Your task to perform on an android device: Find coffee shops on Maps Image 0: 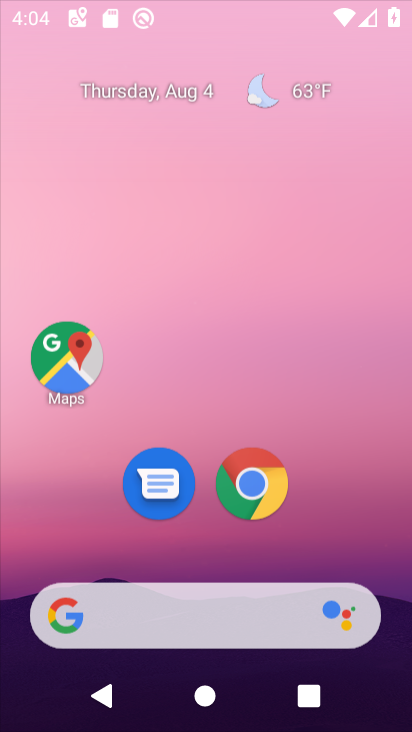
Step 0: click (252, 477)
Your task to perform on an android device: Find coffee shops on Maps Image 1: 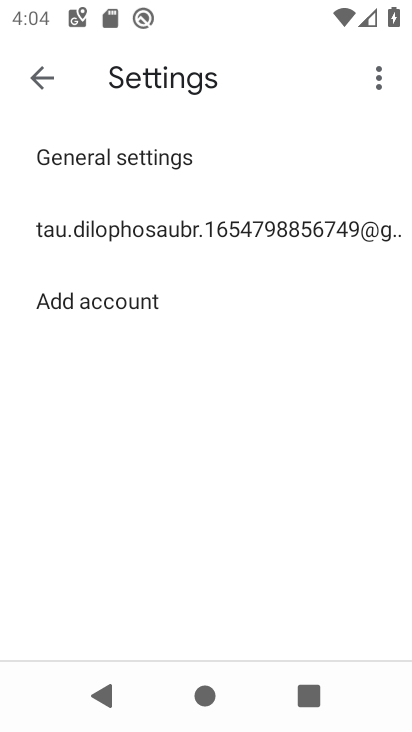
Step 1: press back button
Your task to perform on an android device: Find coffee shops on Maps Image 2: 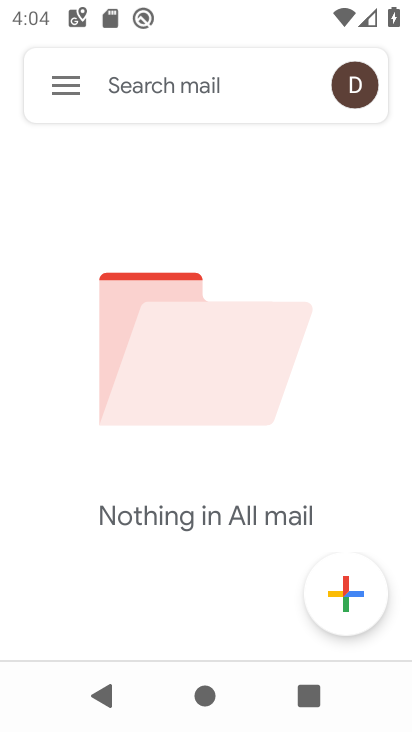
Step 2: press back button
Your task to perform on an android device: Find coffee shops on Maps Image 3: 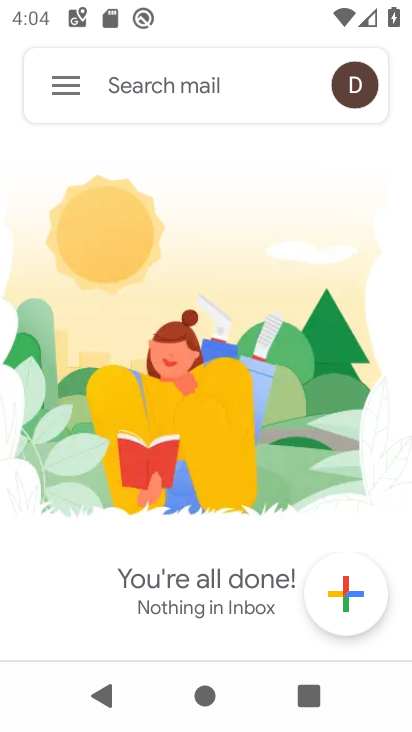
Step 3: press back button
Your task to perform on an android device: Find coffee shops on Maps Image 4: 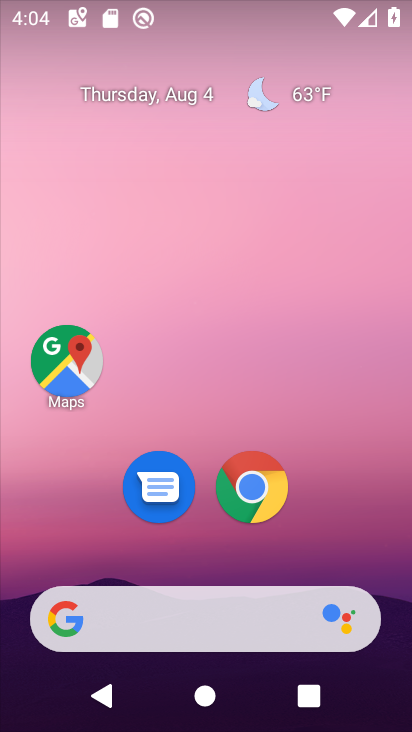
Step 4: click (62, 357)
Your task to perform on an android device: Find coffee shops on Maps Image 5: 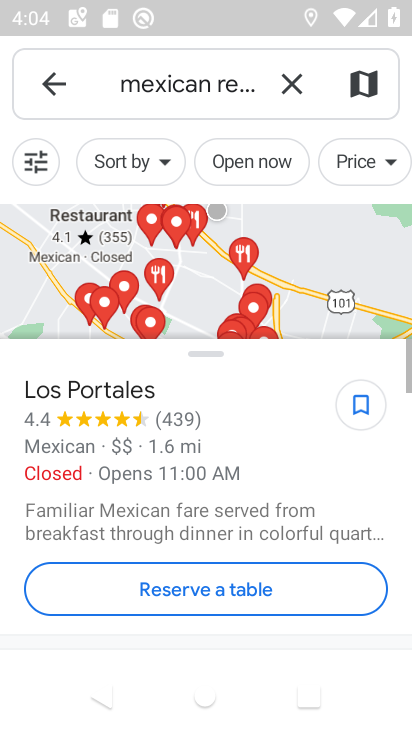
Step 5: click (289, 77)
Your task to perform on an android device: Find coffee shops on Maps Image 6: 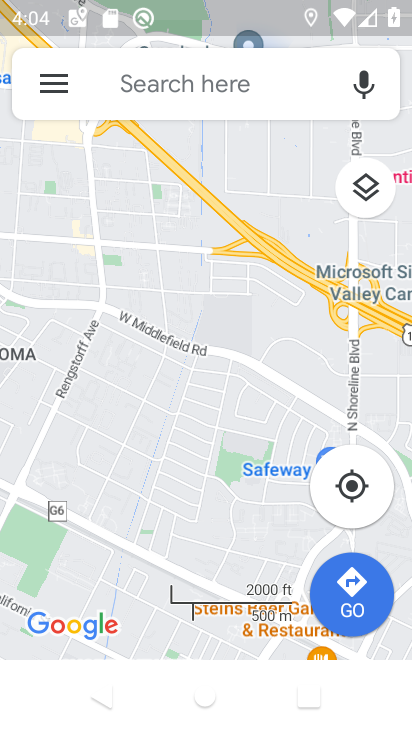
Step 6: click (162, 65)
Your task to perform on an android device: Find coffee shops on Maps Image 7: 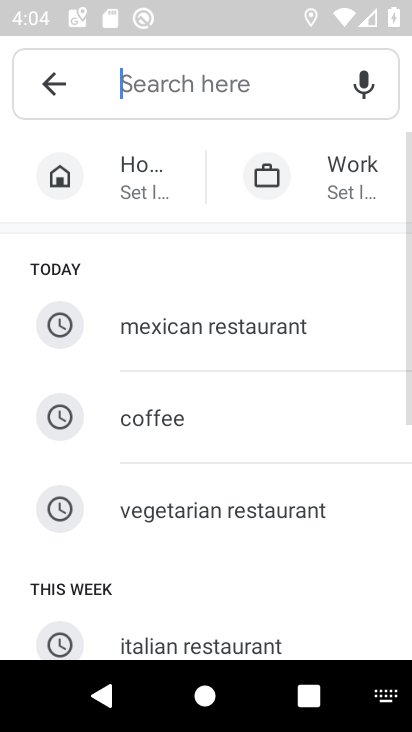
Step 7: click (149, 419)
Your task to perform on an android device: Find coffee shops on Maps Image 8: 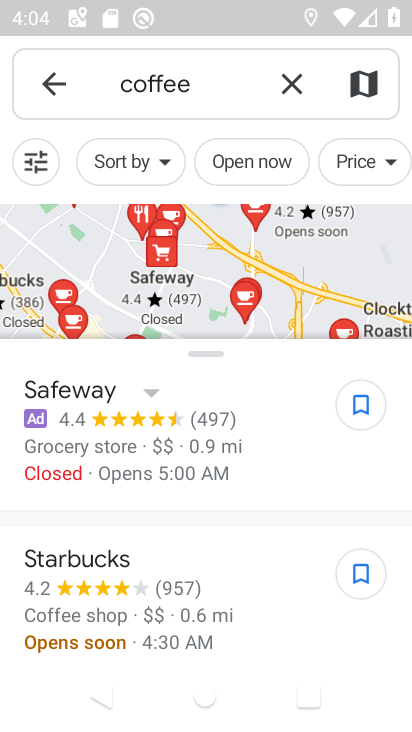
Step 8: task complete